Your task to perform on an android device: change alarm snooze length Image 0: 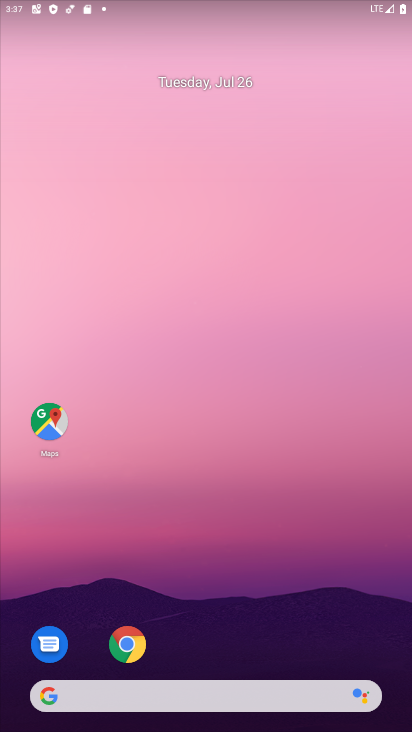
Step 0: drag from (176, 699) to (175, 154)
Your task to perform on an android device: change alarm snooze length Image 1: 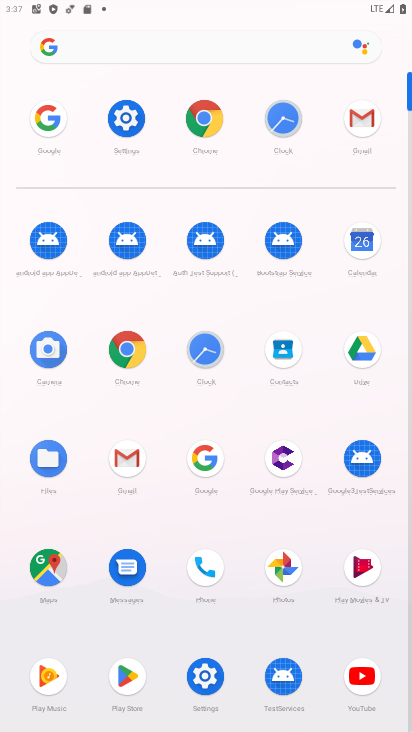
Step 1: click (210, 366)
Your task to perform on an android device: change alarm snooze length Image 2: 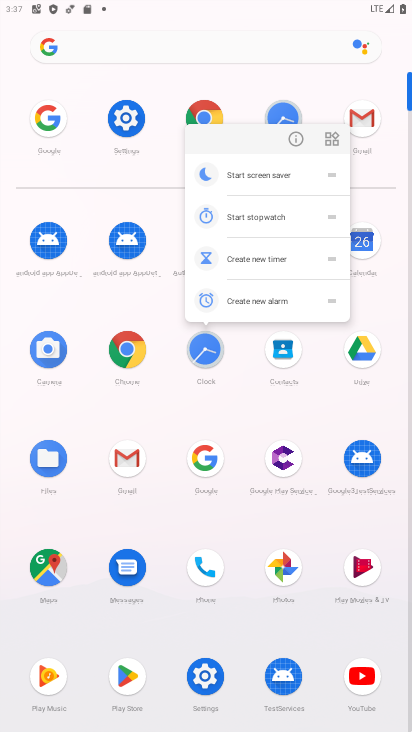
Step 2: click (206, 350)
Your task to perform on an android device: change alarm snooze length Image 3: 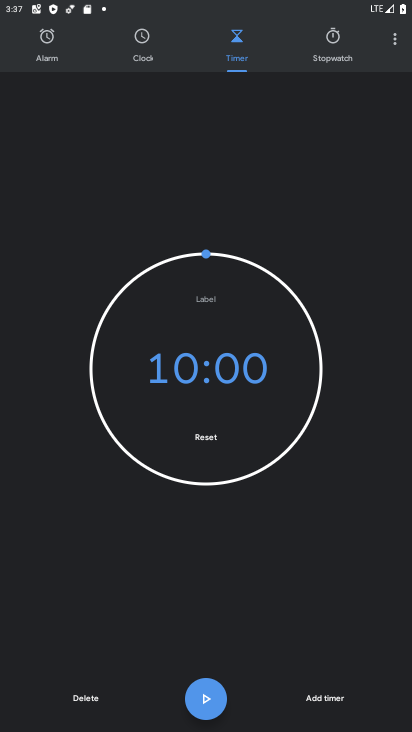
Step 3: click (390, 33)
Your task to perform on an android device: change alarm snooze length Image 4: 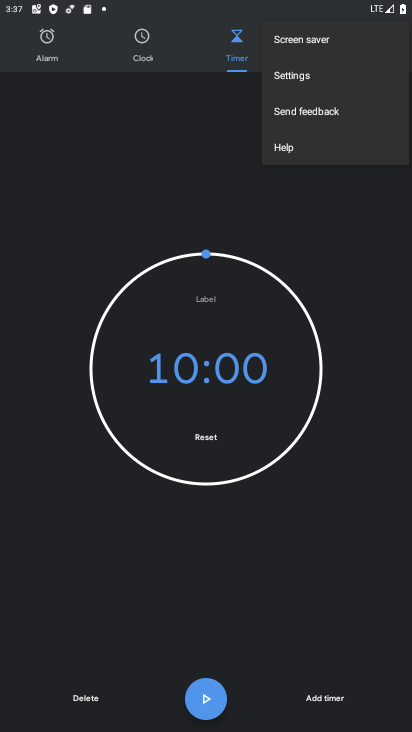
Step 4: click (296, 82)
Your task to perform on an android device: change alarm snooze length Image 5: 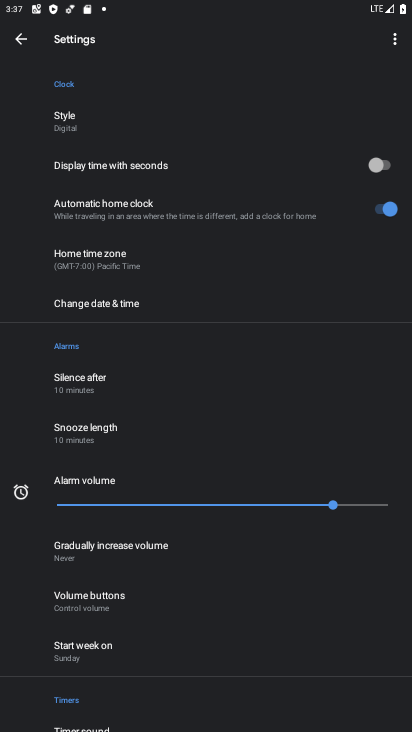
Step 5: click (85, 446)
Your task to perform on an android device: change alarm snooze length Image 6: 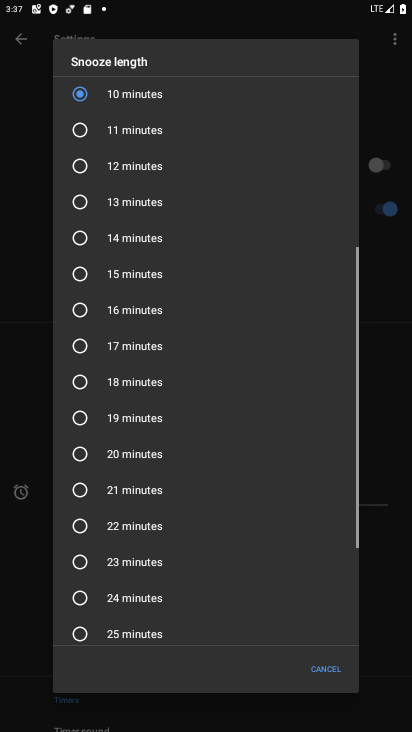
Step 6: click (129, 453)
Your task to perform on an android device: change alarm snooze length Image 7: 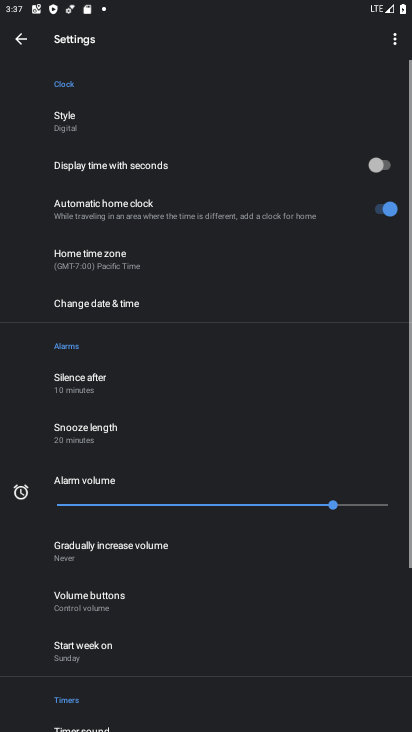
Step 7: task complete